Your task to perform on an android device: turn on priority inbox in the gmail app Image 0: 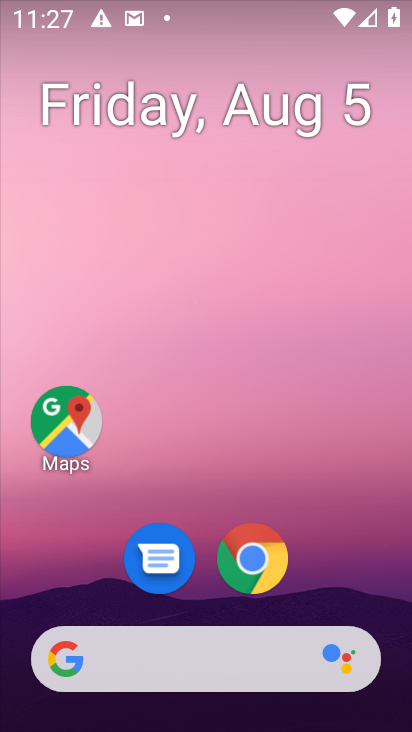
Step 0: press home button
Your task to perform on an android device: turn on priority inbox in the gmail app Image 1: 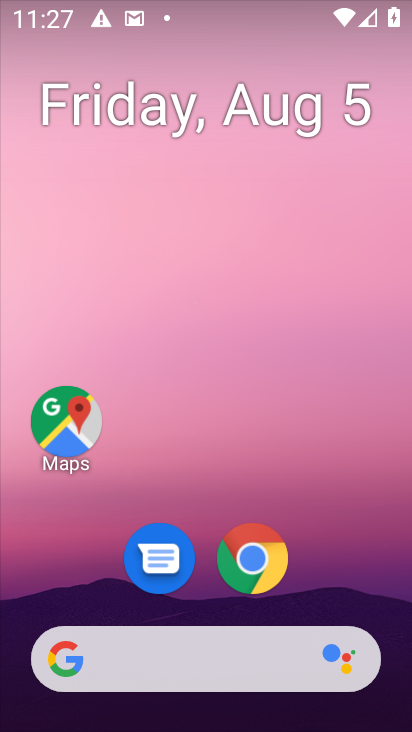
Step 1: drag from (352, 594) to (388, 226)
Your task to perform on an android device: turn on priority inbox in the gmail app Image 2: 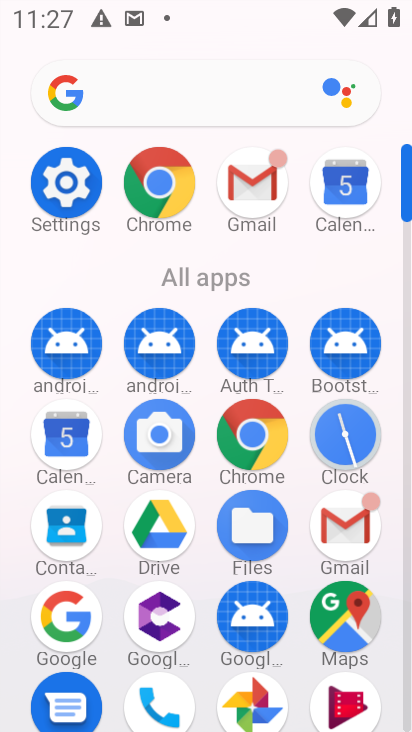
Step 2: click (342, 527)
Your task to perform on an android device: turn on priority inbox in the gmail app Image 3: 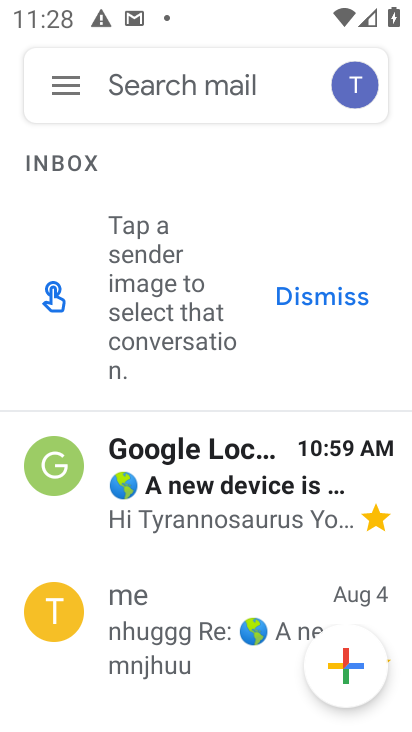
Step 3: click (72, 84)
Your task to perform on an android device: turn on priority inbox in the gmail app Image 4: 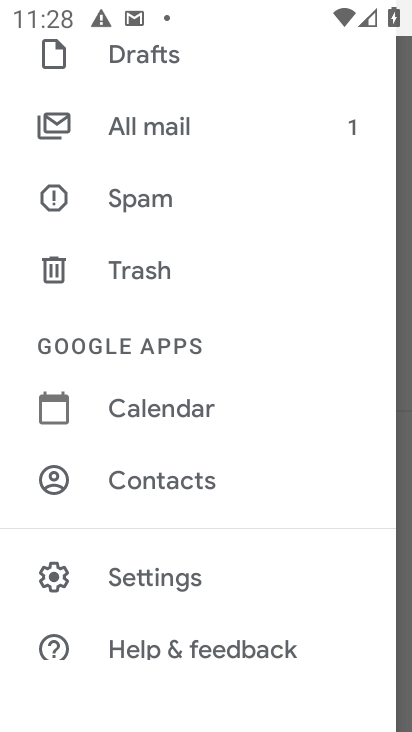
Step 4: click (252, 586)
Your task to perform on an android device: turn on priority inbox in the gmail app Image 5: 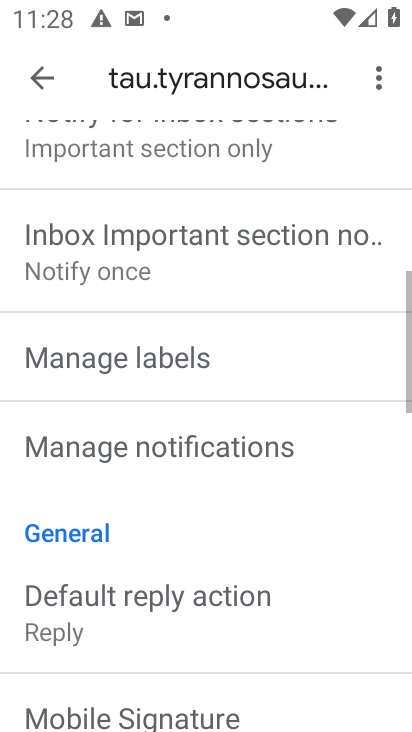
Step 5: task complete